Your task to perform on an android device: toggle translation in the chrome app Image 0: 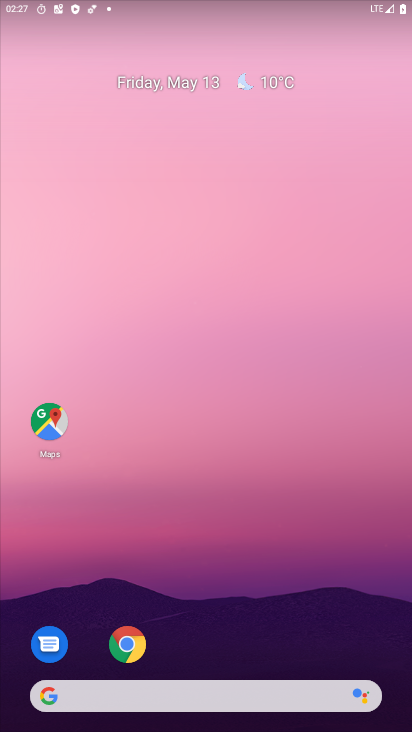
Step 0: drag from (267, 681) to (294, 26)
Your task to perform on an android device: toggle translation in the chrome app Image 1: 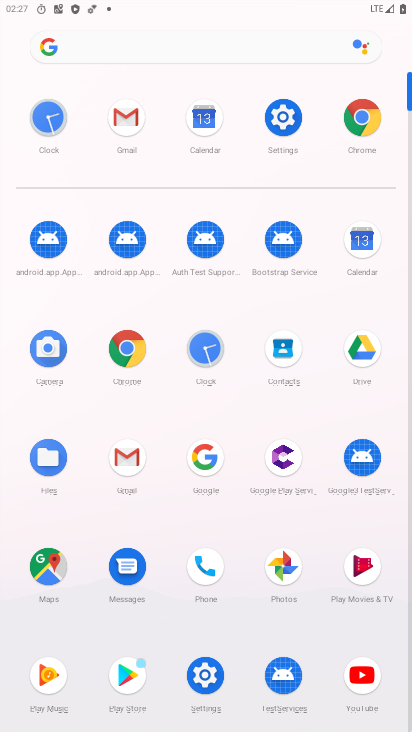
Step 1: click (138, 354)
Your task to perform on an android device: toggle translation in the chrome app Image 2: 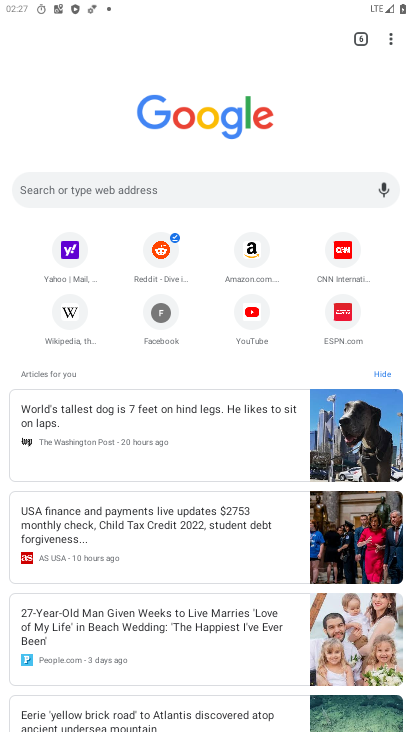
Step 2: drag from (385, 34) to (254, 335)
Your task to perform on an android device: toggle translation in the chrome app Image 3: 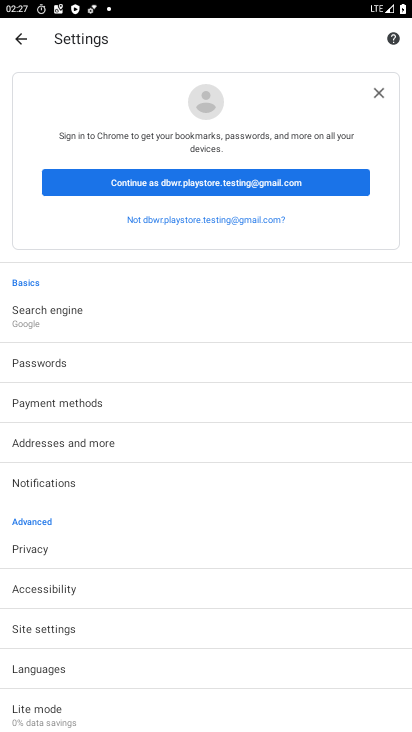
Step 3: drag from (134, 691) to (174, 385)
Your task to perform on an android device: toggle translation in the chrome app Image 4: 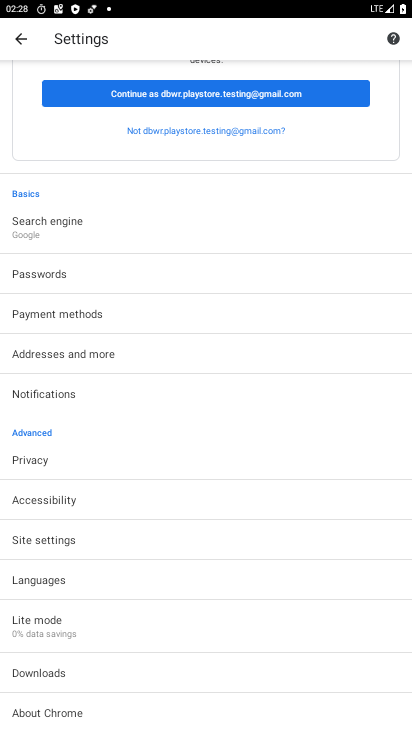
Step 4: click (94, 577)
Your task to perform on an android device: toggle translation in the chrome app Image 5: 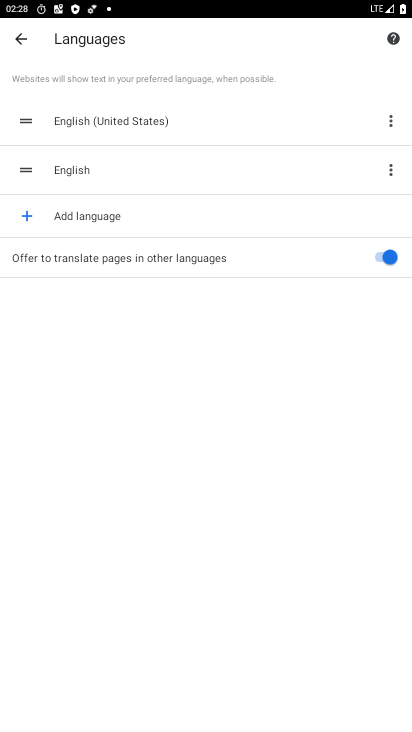
Step 5: click (381, 258)
Your task to perform on an android device: toggle translation in the chrome app Image 6: 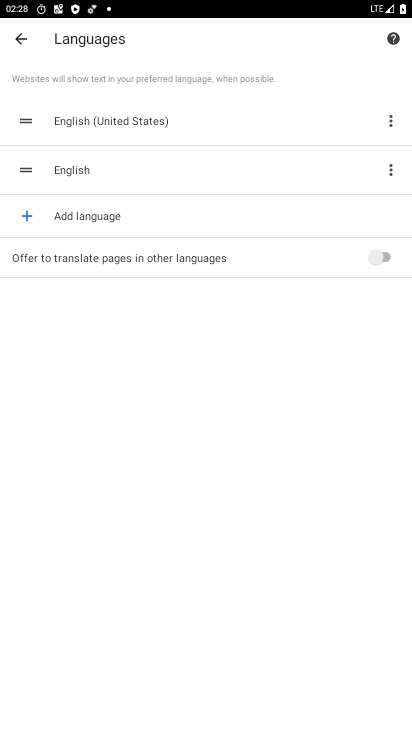
Step 6: task complete